Your task to perform on an android device: What's the weather? Image 0: 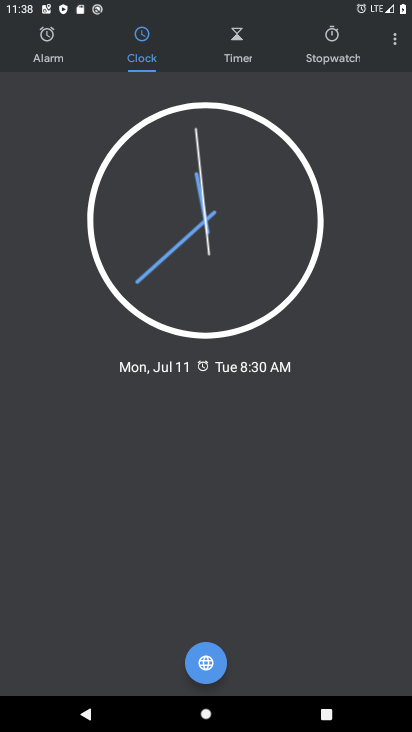
Step 0: press home button
Your task to perform on an android device: What's the weather? Image 1: 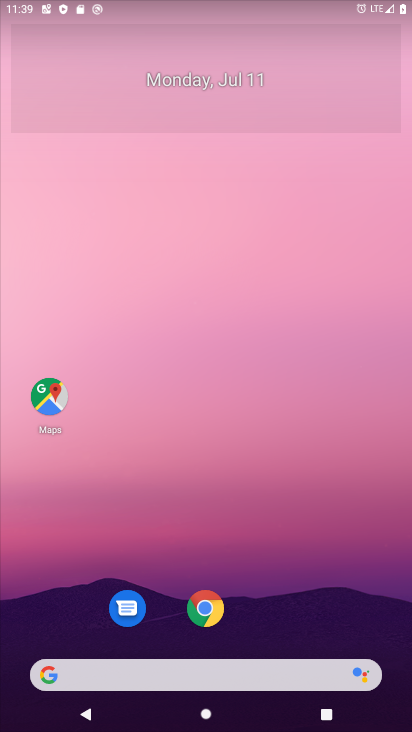
Step 1: click (95, 665)
Your task to perform on an android device: What's the weather? Image 2: 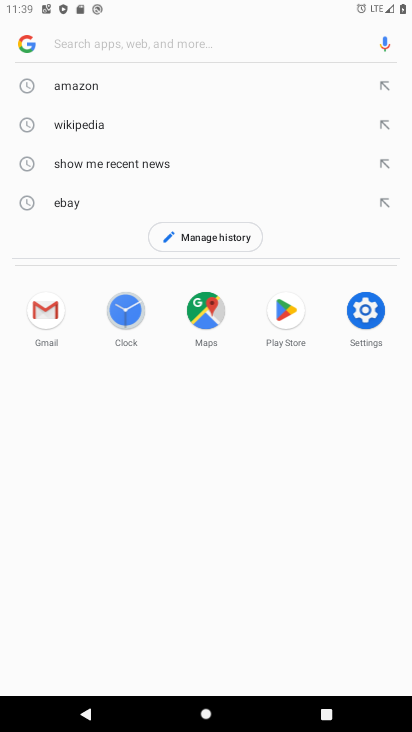
Step 2: type "What's the weather?"
Your task to perform on an android device: What's the weather? Image 3: 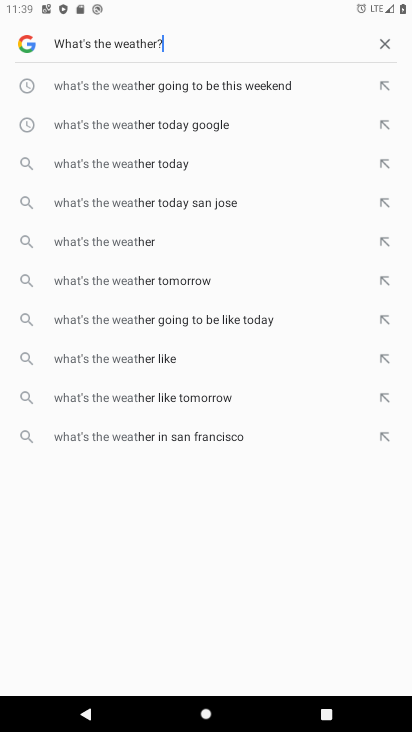
Step 3: type ""
Your task to perform on an android device: What's the weather? Image 4: 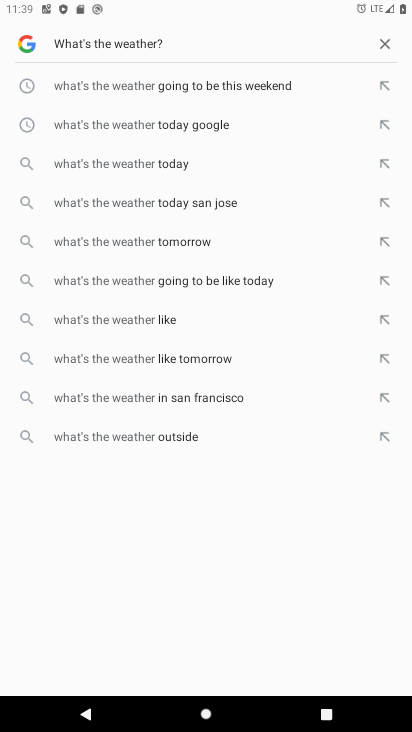
Step 4: type ""
Your task to perform on an android device: What's the weather? Image 5: 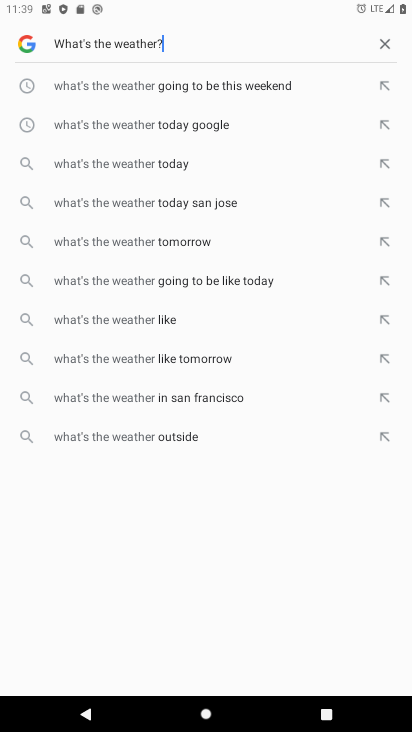
Step 5: type ""
Your task to perform on an android device: What's the weather? Image 6: 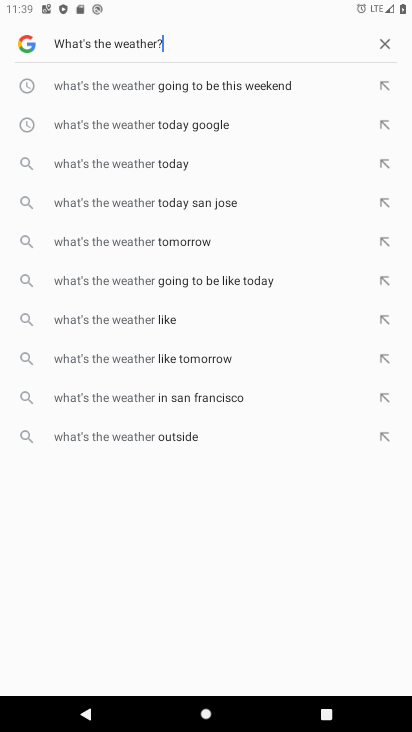
Step 6: task complete